Your task to perform on an android device: find photos in the google photos app Image 0: 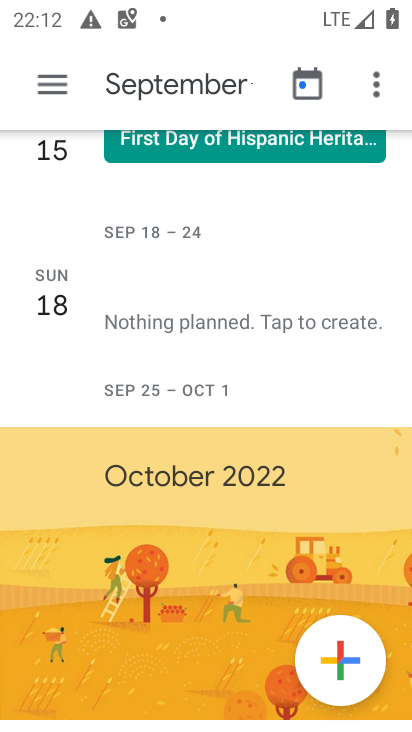
Step 0: press home button
Your task to perform on an android device: find photos in the google photos app Image 1: 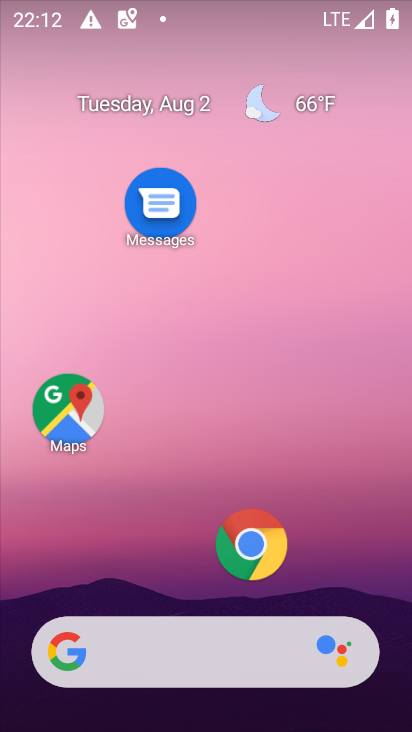
Step 1: drag from (180, 557) to (181, 200)
Your task to perform on an android device: find photos in the google photos app Image 2: 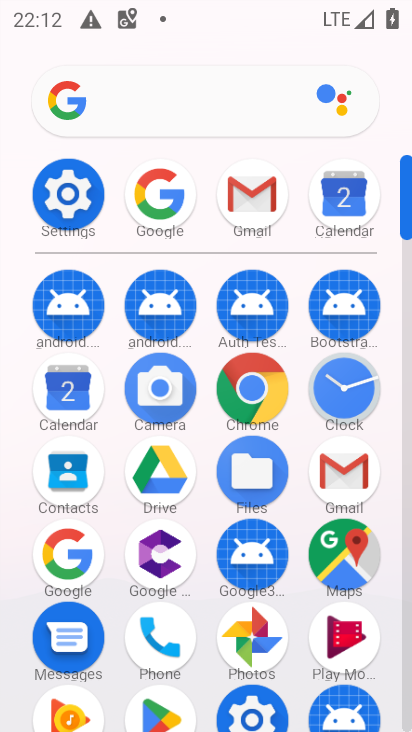
Step 2: click (255, 642)
Your task to perform on an android device: find photos in the google photos app Image 3: 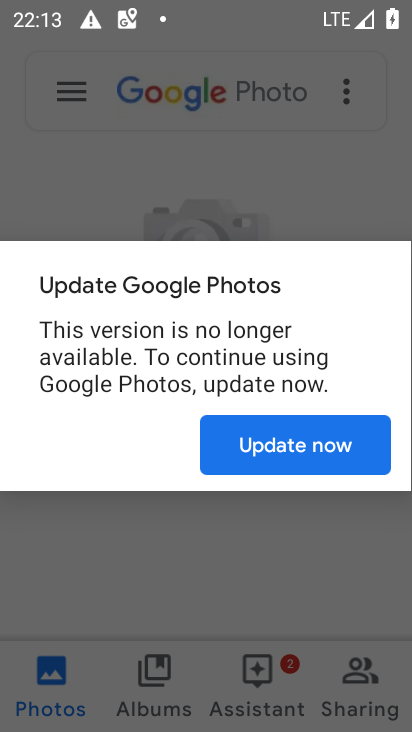
Step 3: click (260, 452)
Your task to perform on an android device: find photos in the google photos app Image 4: 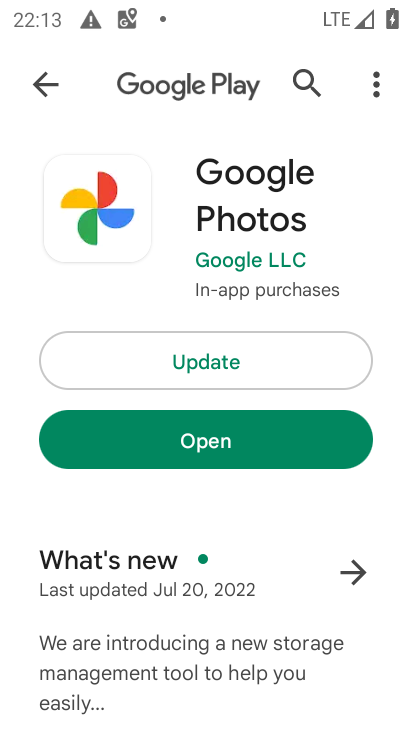
Step 4: click (178, 446)
Your task to perform on an android device: find photos in the google photos app Image 5: 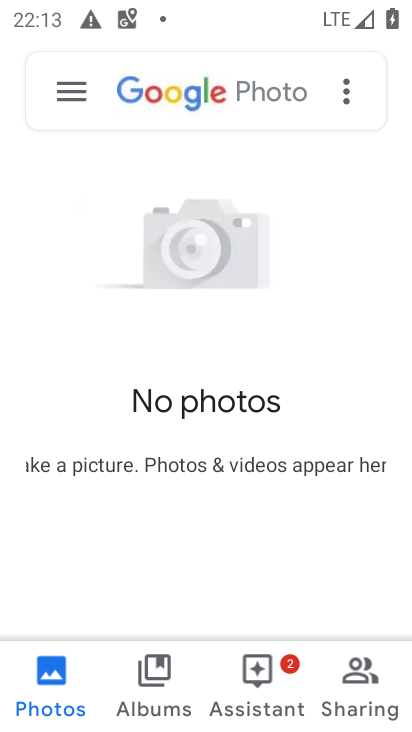
Step 5: click (201, 105)
Your task to perform on an android device: find photos in the google photos app Image 6: 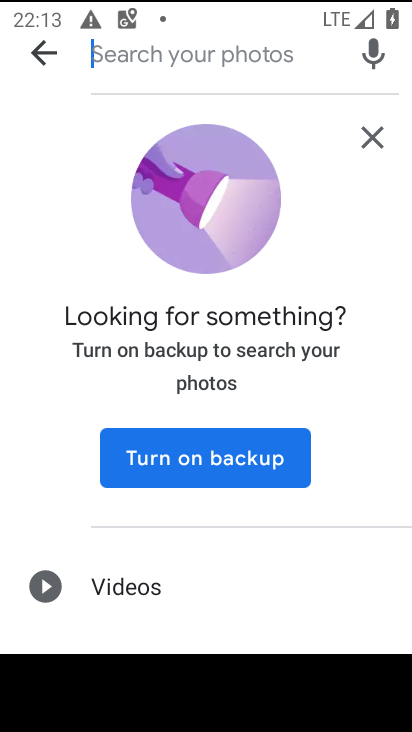
Step 6: type "aa"
Your task to perform on an android device: find photos in the google photos app Image 7: 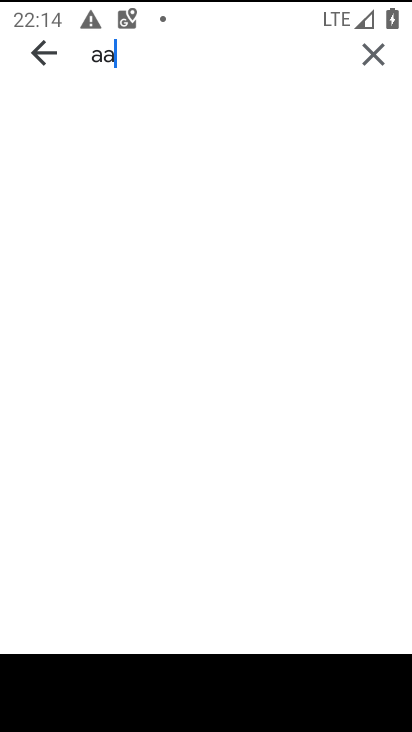
Step 7: task complete